Your task to perform on an android device: turn pop-ups on in chrome Image 0: 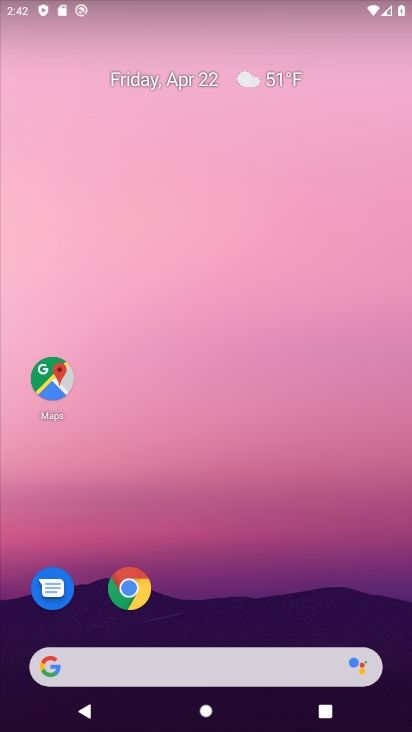
Step 0: click (138, 593)
Your task to perform on an android device: turn pop-ups on in chrome Image 1: 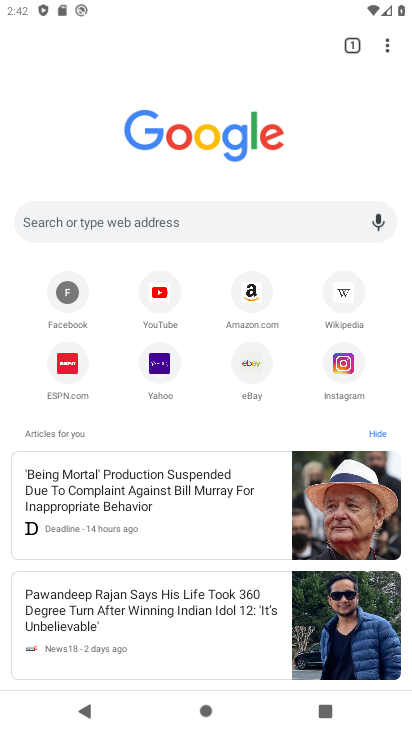
Step 1: click (391, 51)
Your task to perform on an android device: turn pop-ups on in chrome Image 2: 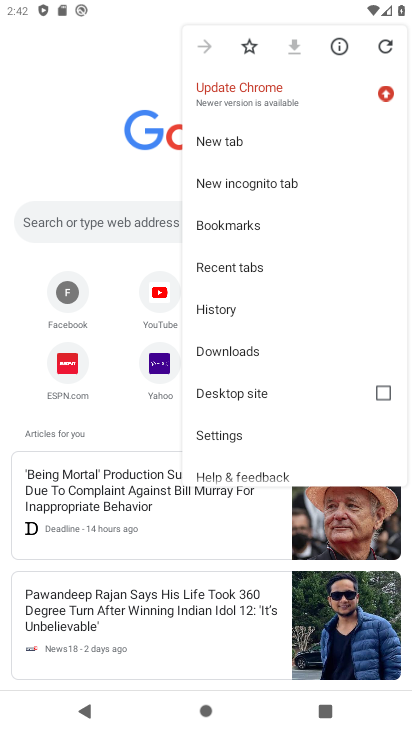
Step 2: click (231, 438)
Your task to perform on an android device: turn pop-ups on in chrome Image 3: 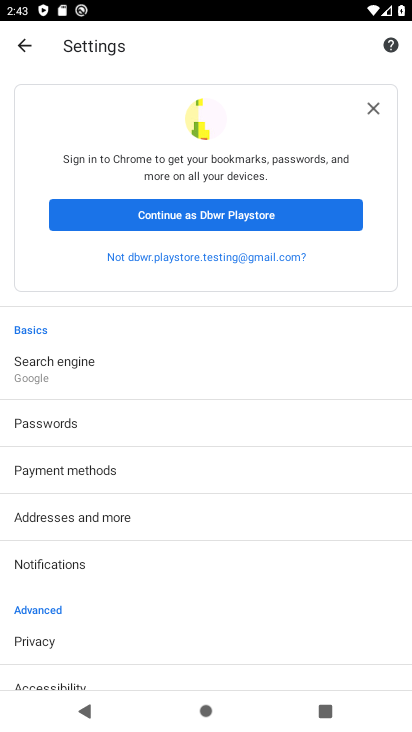
Step 3: drag from (136, 540) to (154, 255)
Your task to perform on an android device: turn pop-ups on in chrome Image 4: 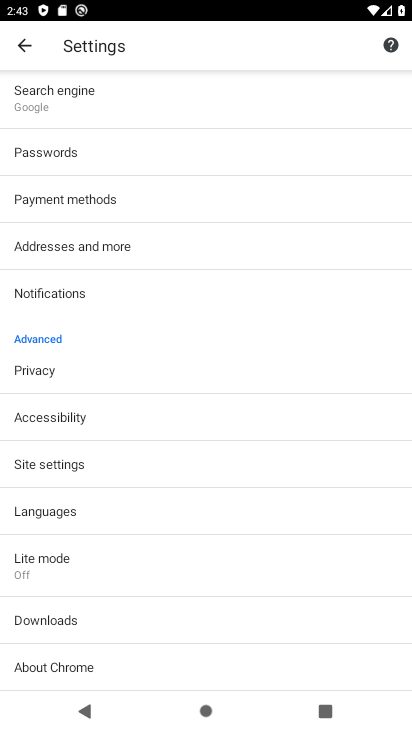
Step 4: click (53, 466)
Your task to perform on an android device: turn pop-ups on in chrome Image 5: 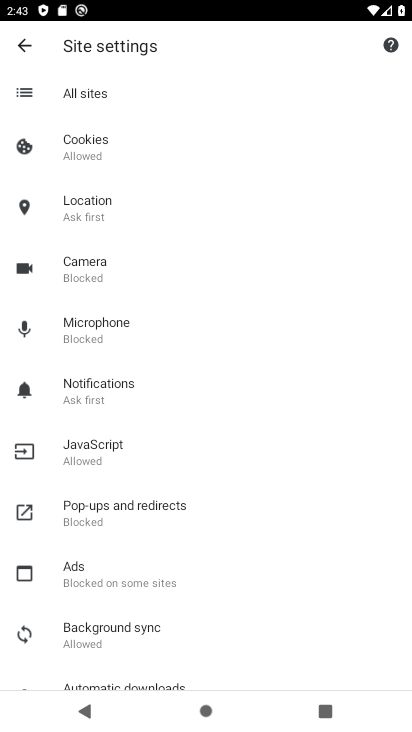
Step 5: click (123, 521)
Your task to perform on an android device: turn pop-ups on in chrome Image 6: 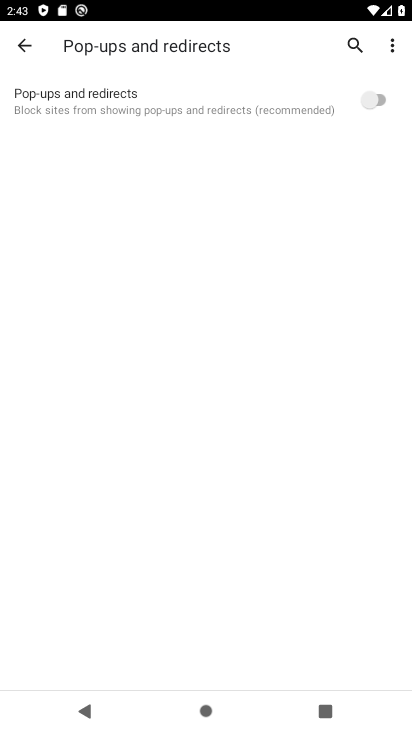
Step 6: click (373, 93)
Your task to perform on an android device: turn pop-ups on in chrome Image 7: 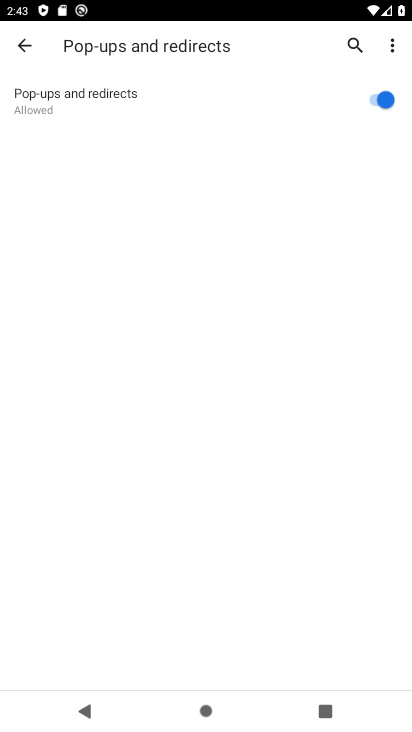
Step 7: task complete